Your task to perform on an android device: Check the weather Image 0: 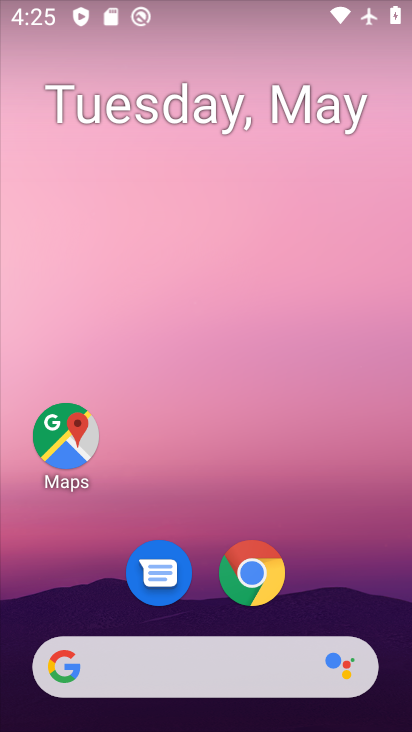
Step 0: click (245, 575)
Your task to perform on an android device: Check the weather Image 1: 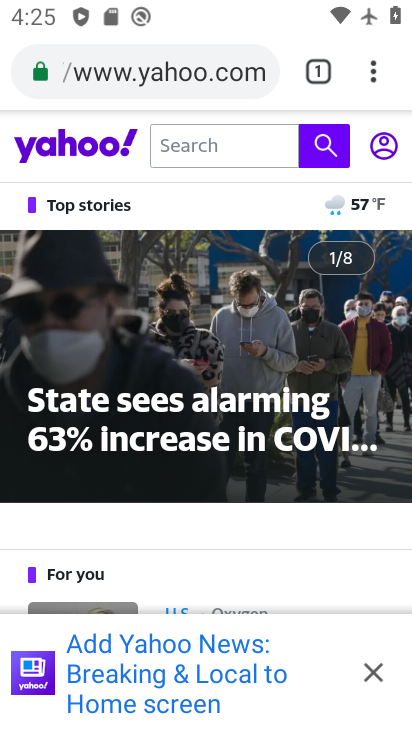
Step 1: click (192, 83)
Your task to perform on an android device: Check the weather Image 2: 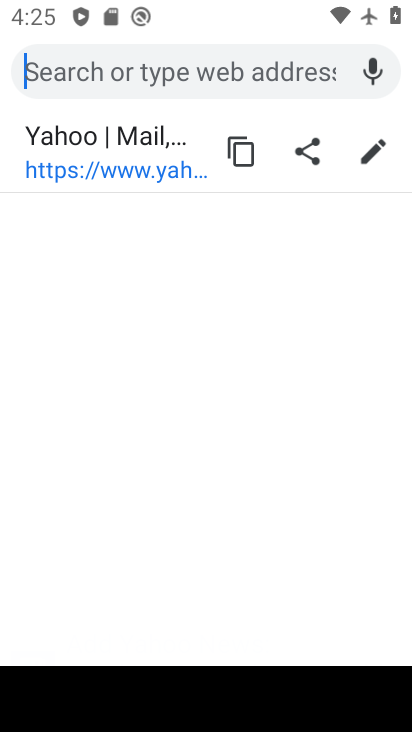
Step 2: type "weather"
Your task to perform on an android device: Check the weather Image 3: 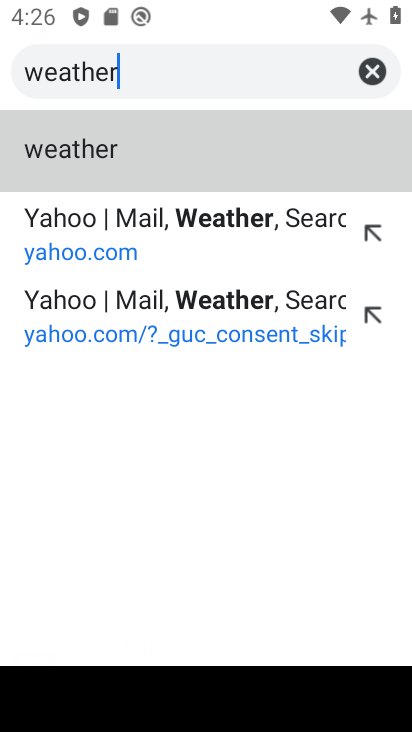
Step 3: click (72, 147)
Your task to perform on an android device: Check the weather Image 4: 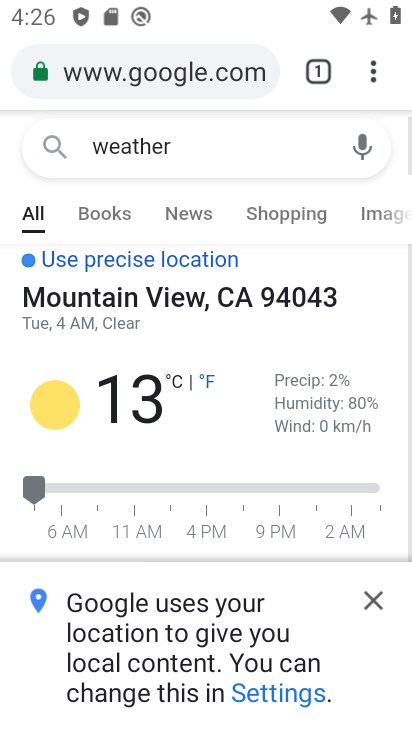
Step 4: task complete